Your task to perform on an android device: turn smart compose on in the gmail app Image 0: 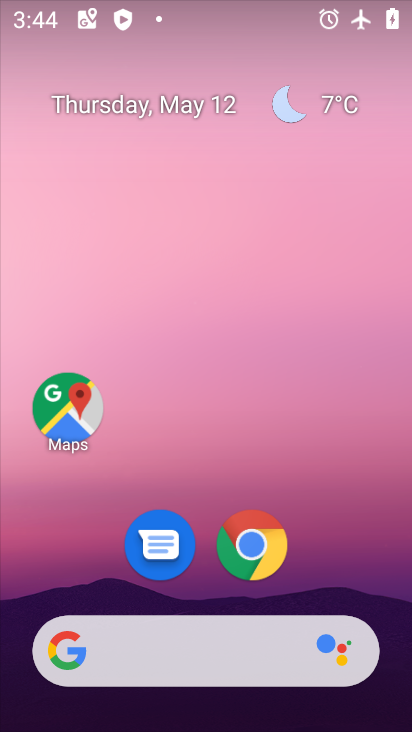
Step 0: drag from (390, 641) to (322, 206)
Your task to perform on an android device: turn smart compose on in the gmail app Image 1: 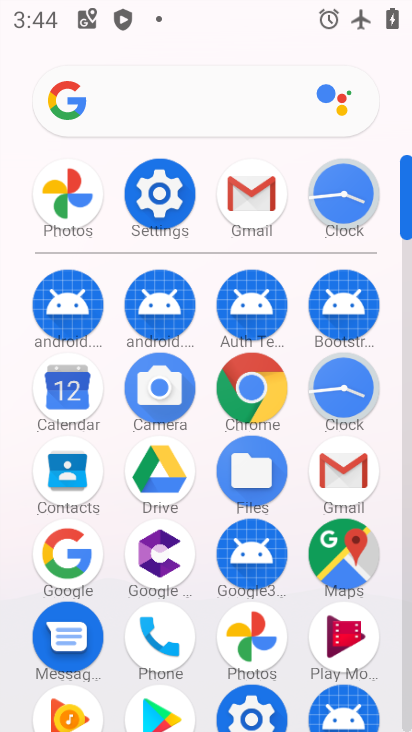
Step 1: click (343, 469)
Your task to perform on an android device: turn smart compose on in the gmail app Image 2: 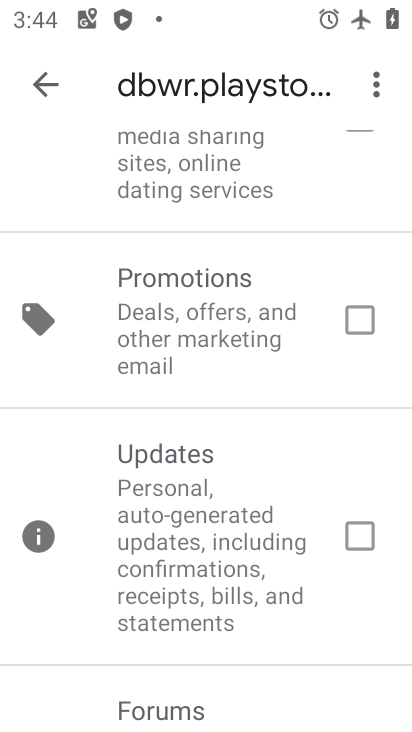
Step 2: task complete